Your task to perform on an android device: Go to location settings Image 0: 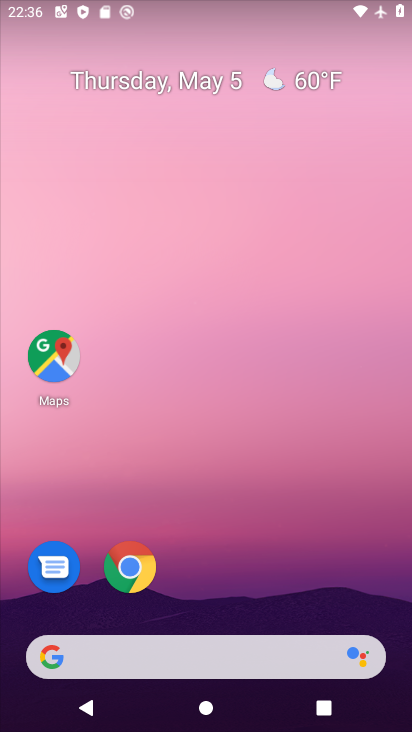
Step 0: drag from (195, 370) to (174, 260)
Your task to perform on an android device: Go to location settings Image 1: 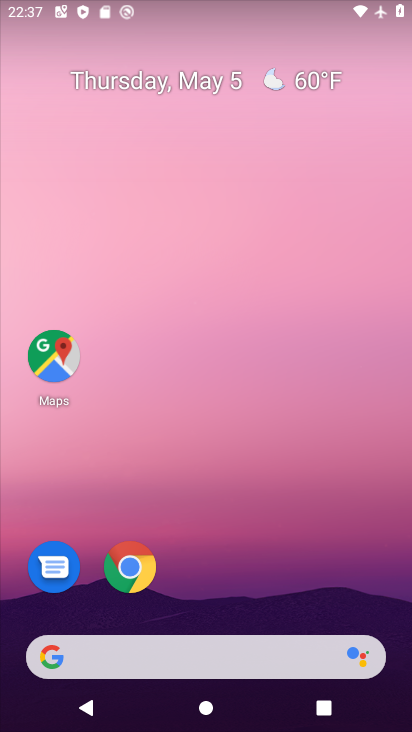
Step 1: drag from (217, 593) to (169, 133)
Your task to perform on an android device: Go to location settings Image 2: 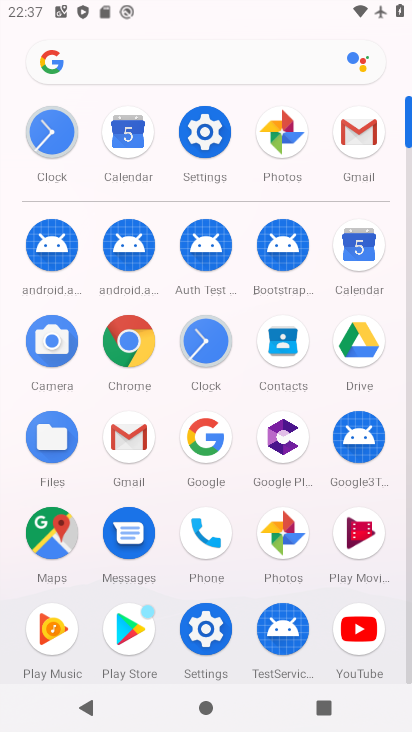
Step 2: click (191, 118)
Your task to perform on an android device: Go to location settings Image 3: 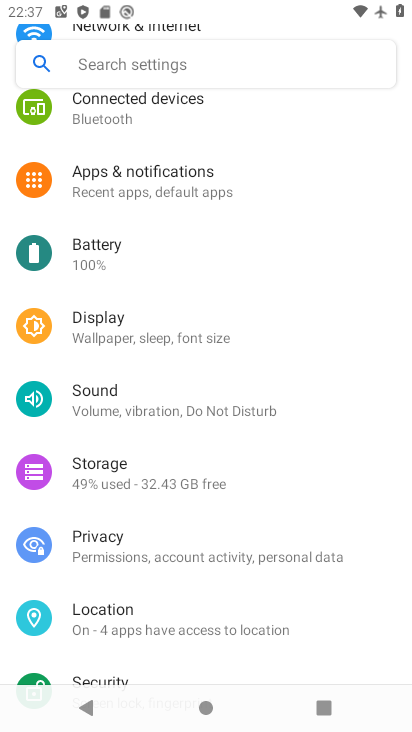
Step 3: click (163, 630)
Your task to perform on an android device: Go to location settings Image 4: 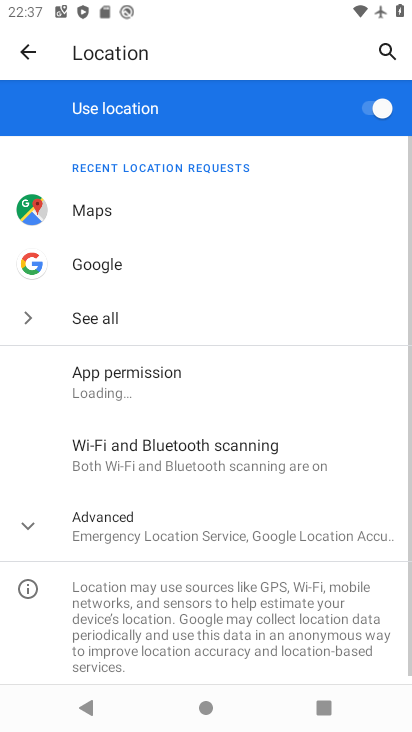
Step 4: task complete